Your task to perform on an android device: create a new album in the google photos Image 0: 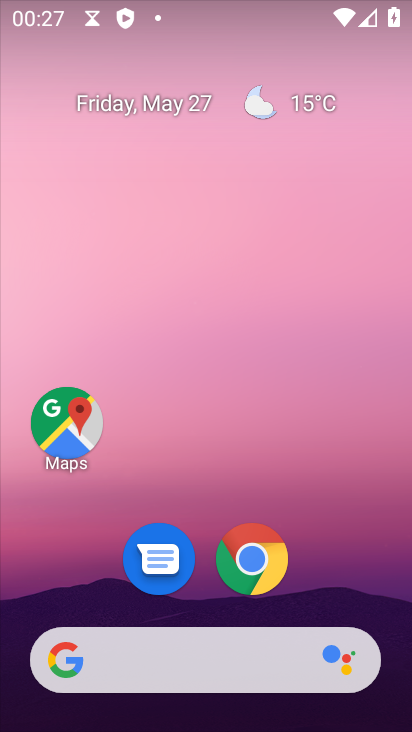
Step 0: click (67, 424)
Your task to perform on an android device: create a new album in the google photos Image 1: 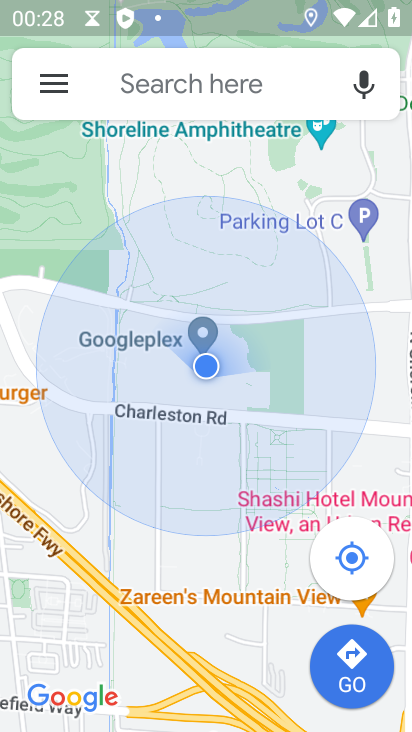
Step 1: press home button
Your task to perform on an android device: create a new album in the google photos Image 2: 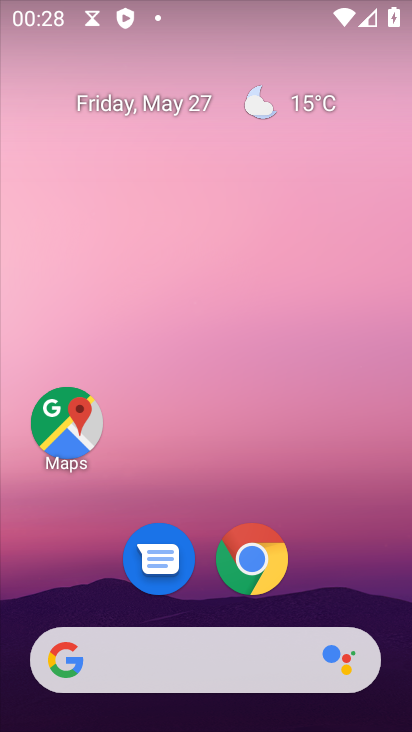
Step 2: drag from (348, 488) to (183, 8)
Your task to perform on an android device: create a new album in the google photos Image 3: 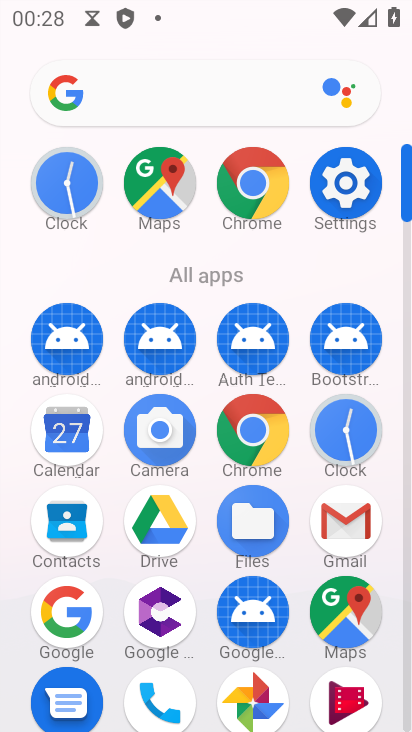
Step 3: click (262, 698)
Your task to perform on an android device: create a new album in the google photos Image 4: 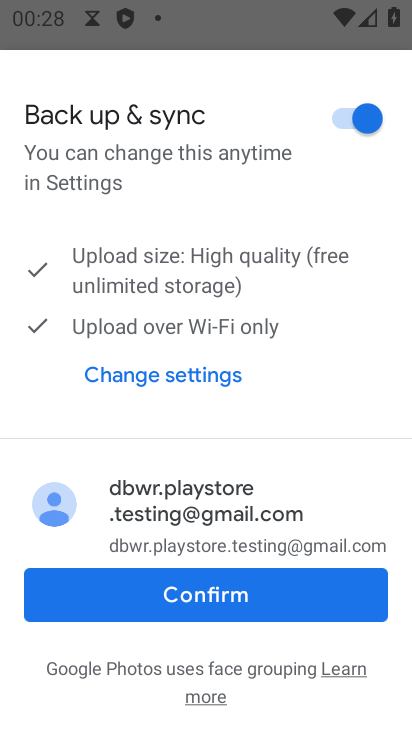
Step 4: click (256, 601)
Your task to perform on an android device: create a new album in the google photos Image 5: 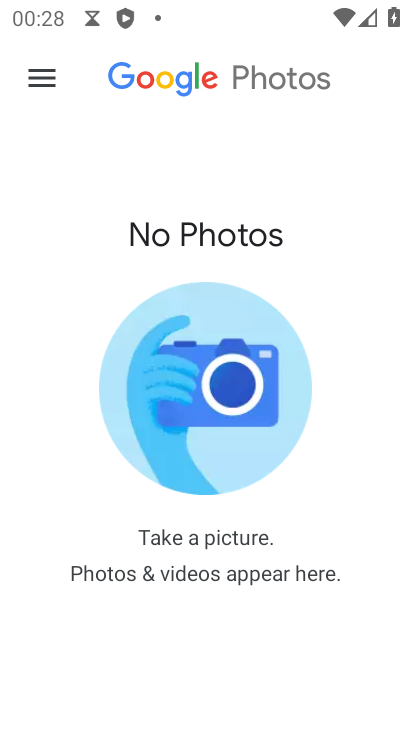
Step 5: click (43, 72)
Your task to perform on an android device: create a new album in the google photos Image 6: 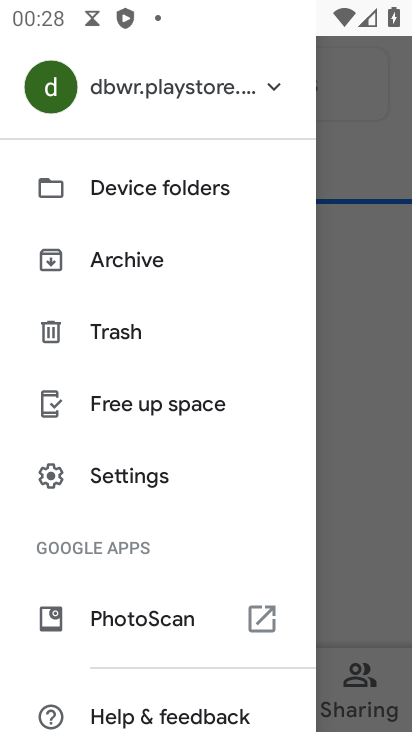
Step 6: click (332, 400)
Your task to perform on an android device: create a new album in the google photos Image 7: 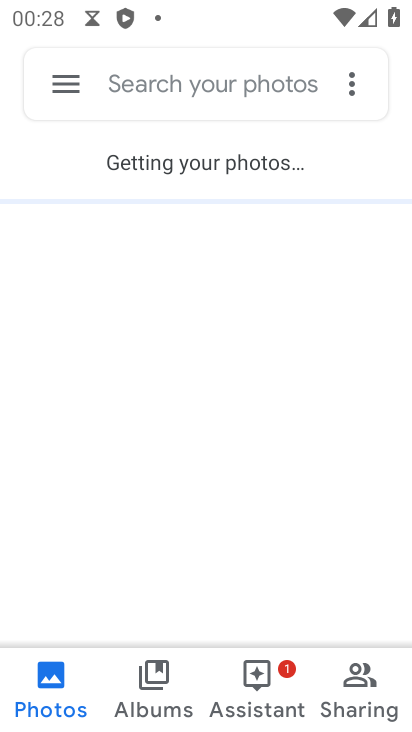
Step 7: click (155, 695)
Your task to perform on an android device: create a new album in the google photos Image 8: 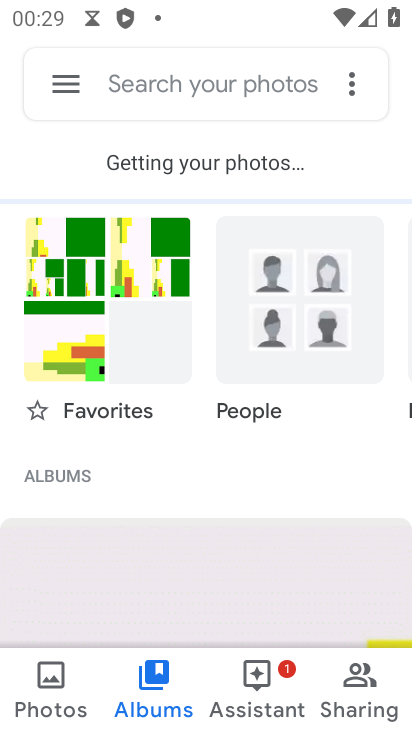
Step 8: drag from (187, 470) to (161, 200)
Your task to perform on an android device: create a new album in the google photos Image 9: 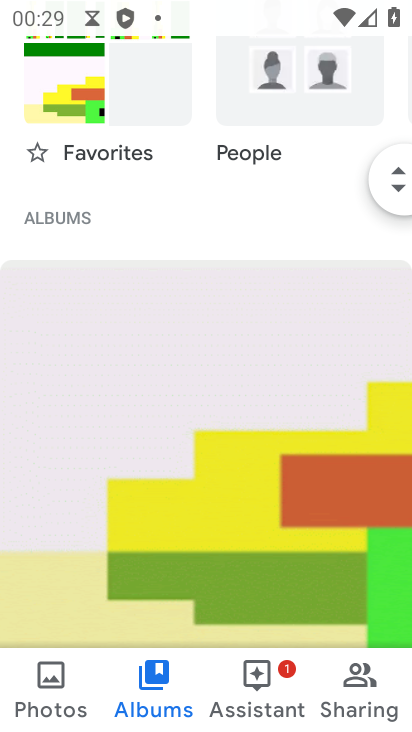
Step 9: drag from (153, 509) to (167, 119)
Your task to perform on an android device: create a new album in the google photos Image 10: 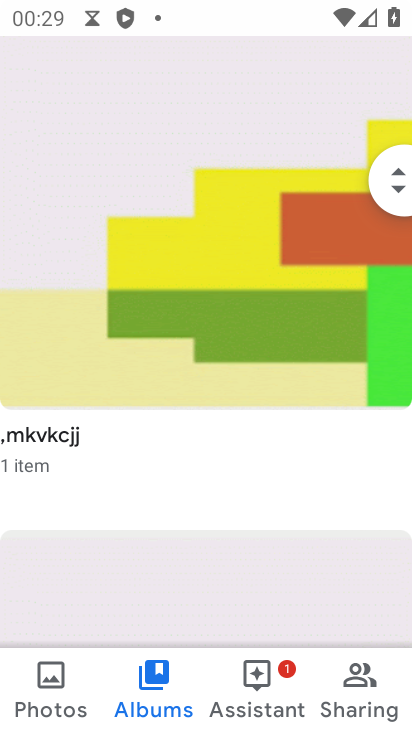
Step 10: drag from (123, 511) to (174, 188)
Your task to perform on an android device: create a new album in the google photos Image 11: 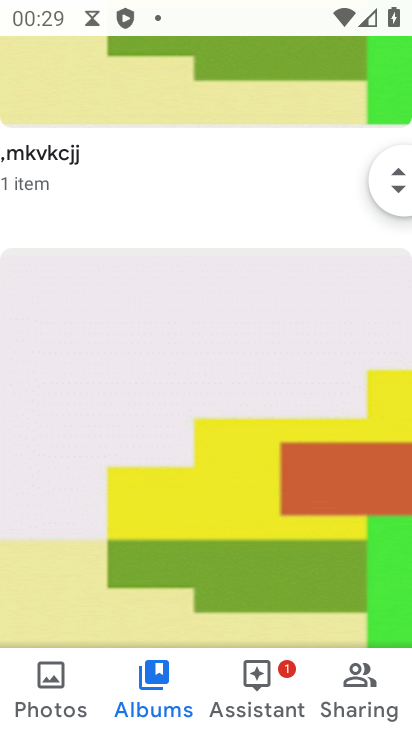
Step 11: drag from (263, 128) to (213, 728)
Your task to perform on an android device: create a new album in the google photos Image 12: 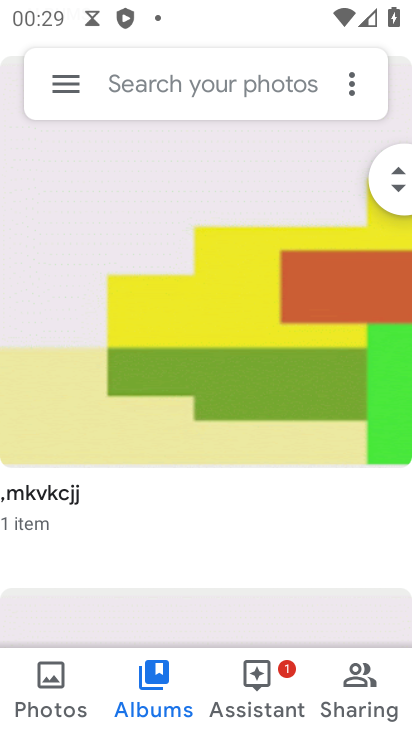
Step 12: click (364, 86)
Your task to perform on an android device: create a new album in the google photos Image 13: 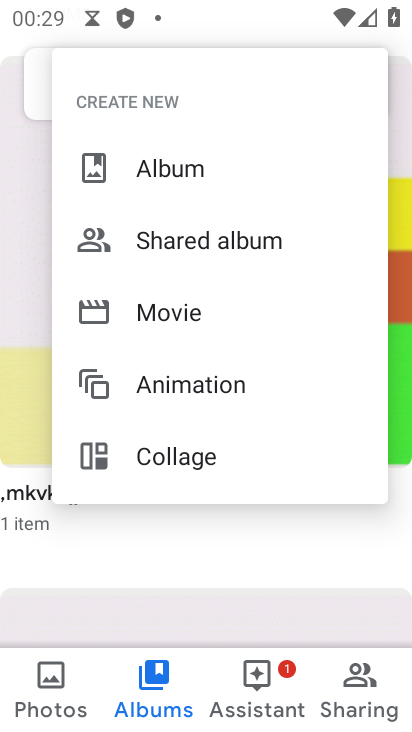
Step 13: click (192, 175)
Your task to perform on an android device: create a new album in the google photos Image 14: 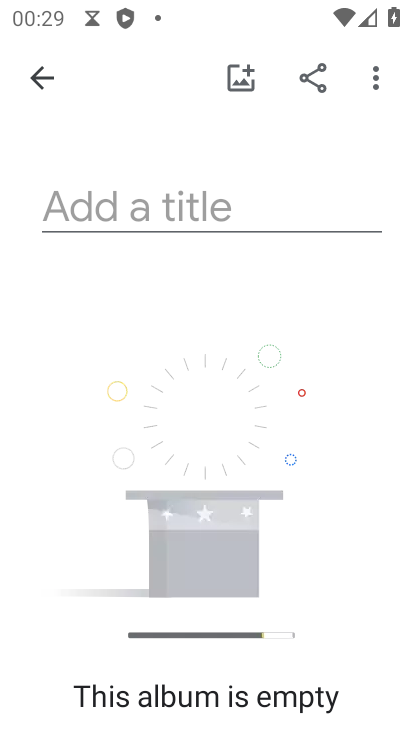
Step 14: click (111, 211)
Your task to perform on an android device: create a new album in the google photos Image 15: 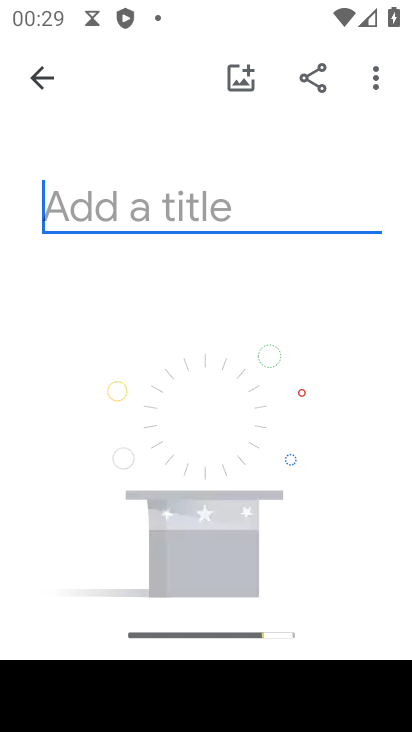
Step 15: type "fgsfg"
Your task to perform on an android device: create a new album in the google photos Image 16: 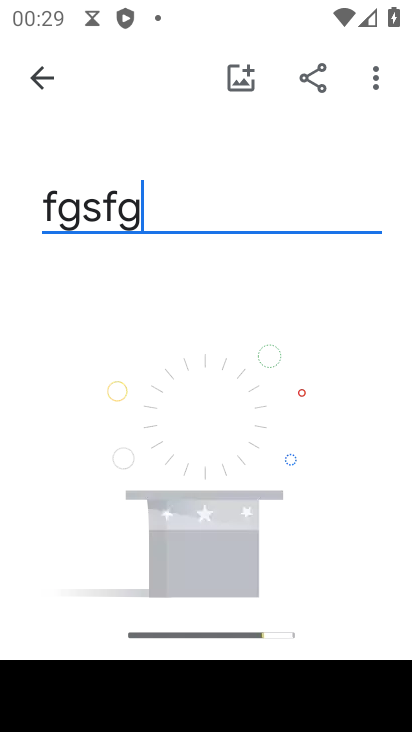
Step 16: type ""
Your task to perform on an android device: create a new album in the google photos Image 17: 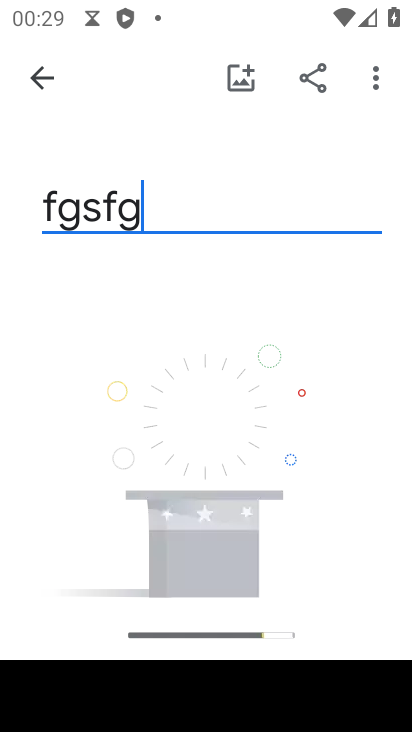
Step 17: drag from (221, 548) to (229, 71)
Your task to perform on an android device: create a new album in the google photos Image 18: 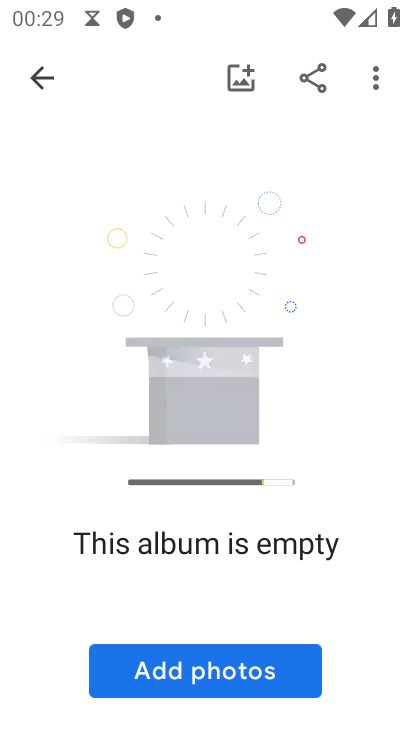
Step 18: click (236, 674)
Your task to perform on an android device: create a new album in the google photos Image 19: 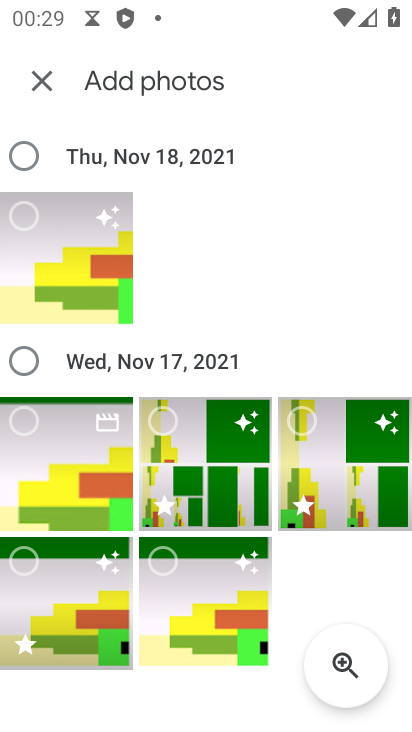
Step 19: click (94, 256)
Your task to perform on an android device: create a new album in the google photos Image 20: 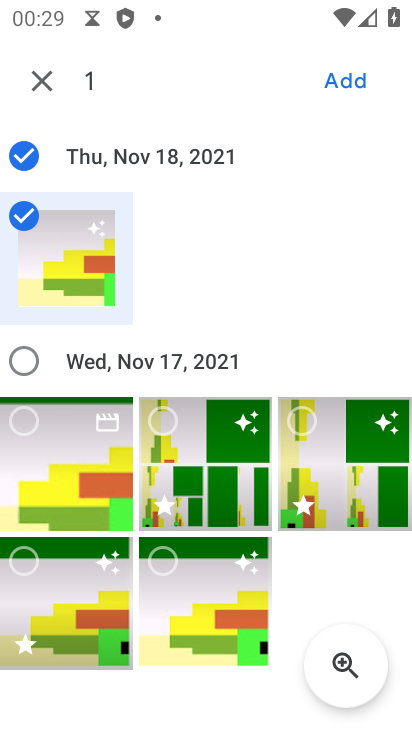
Step 20: click (206, 456)
Your task to perform on an android device: create a new album in the google photos Image 21: 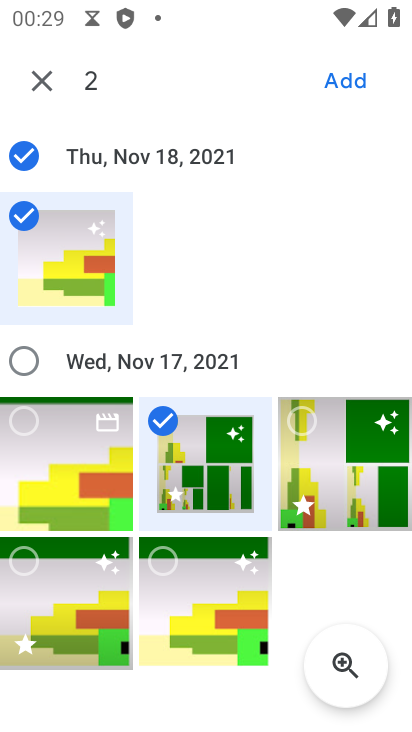
Step 21: click (337, 79)
Your task to perform on an android device: create a new album in the google photos Image 22: 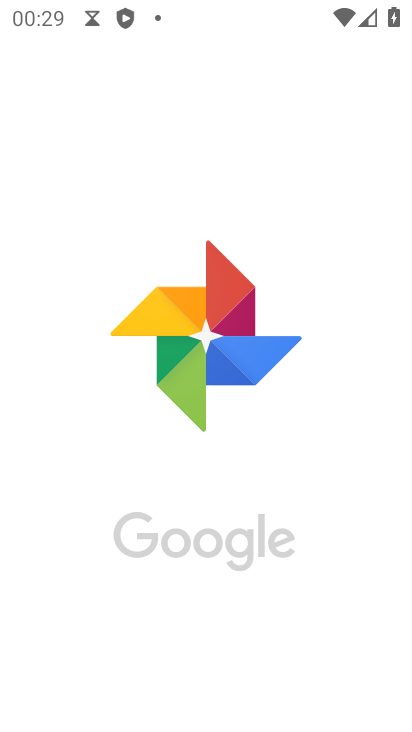
Step 22: task complete